Your task to perform on an android device: Open Google Chrome and open the bookmarks view Image 0: 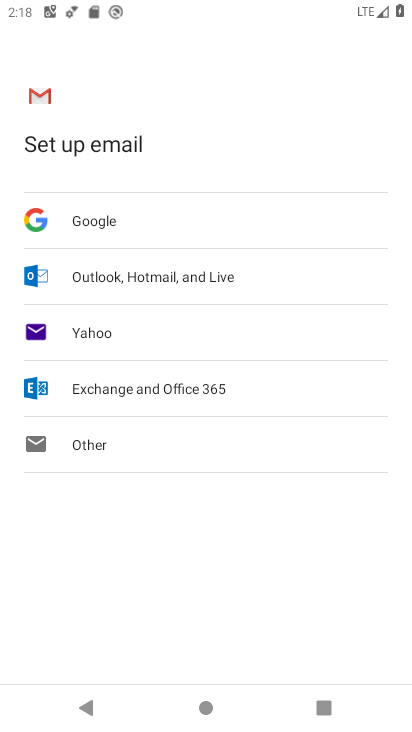
Step 0: press home button
Your task to perform on an android device: Open Google Chrome and open the bookmarks view Image 1: 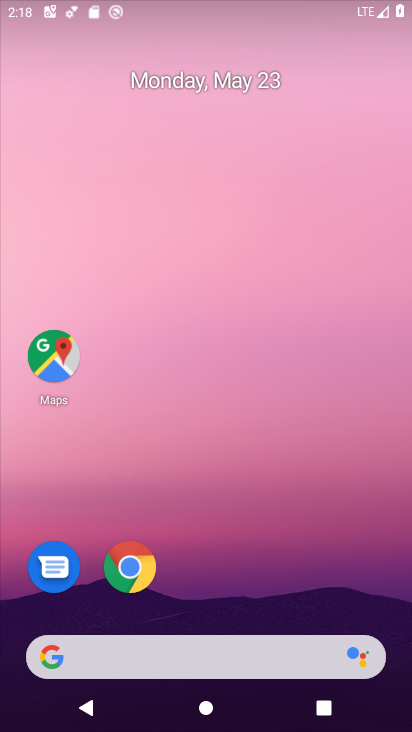
Step 1: drag from (257, 562) to (266, 200)
Your task to perform on an android device: Open Google Chrome and open the bookmarks view Image 2: 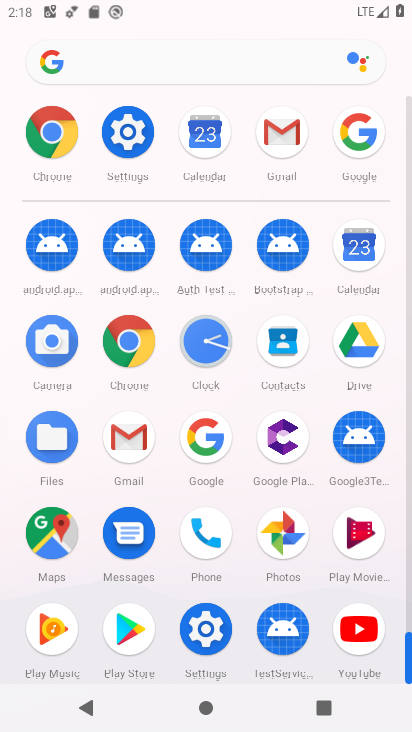
Step 2: click (131, 357)
Your task to perform on an android device: Open Google Chrome and open the bookmarks view Image 3: 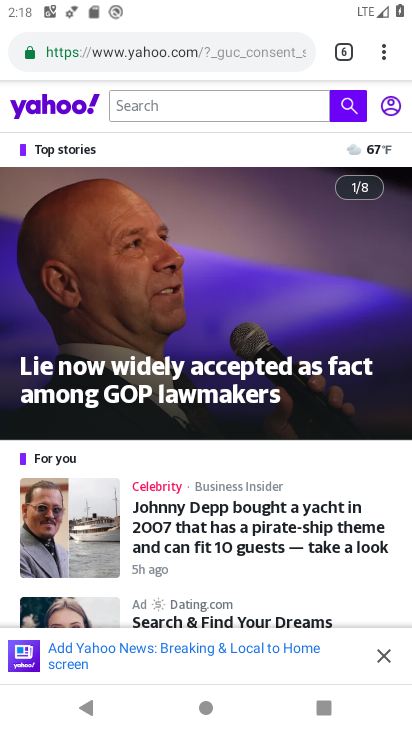
Step 3: click (380, 59)
Your task to perform on an android device: Open Google Chrome and open the bookmarks view Image 4: 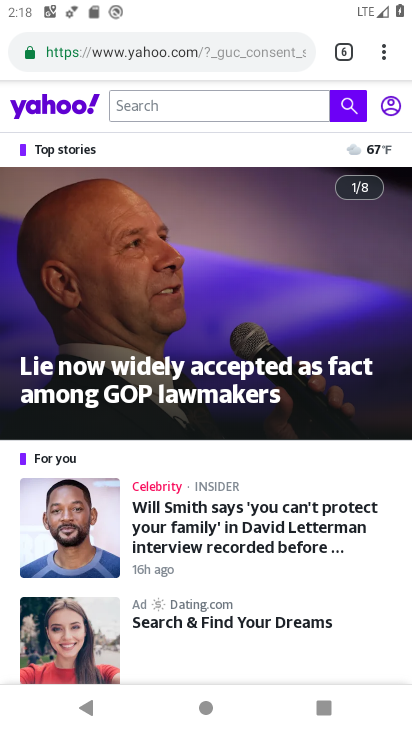
Step 4: click (387, 55)
Your task to perform on an android device: Open Google Chrome and open the bookmarks view Image 5: 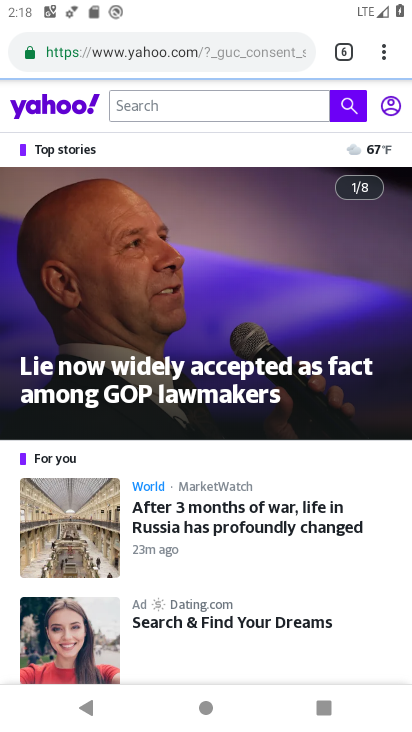
Step 5: click (380, 58)
Your task to perform on an android device: Open Google Chrome and open the bookmarks view Image 6: 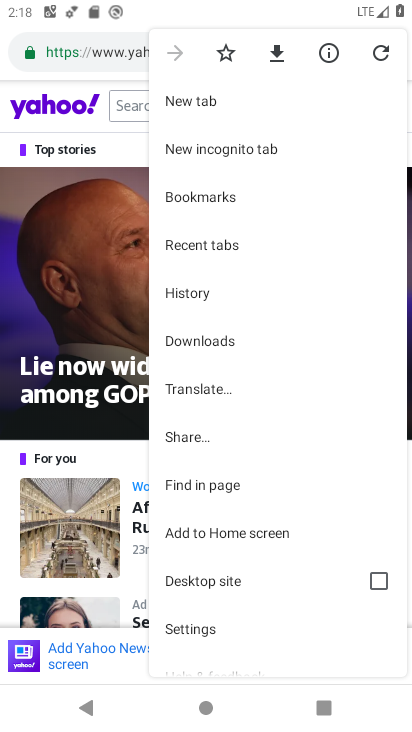
Step 6: click (240, 198)
Your task to perform on an android device: Open Google Chrome and open the bookmarks view Image 7: 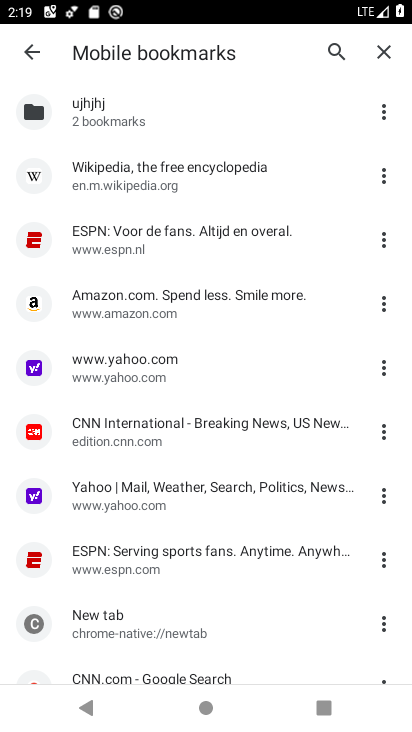
Step 7: click (174, 199)
Your task to perform on an android device: Open Google Chrome and open the bookmarks view Image 8: 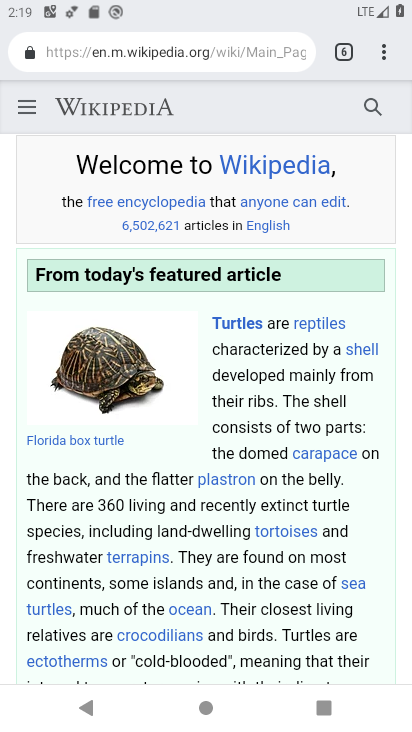
Step 8: task complete